Your task to perform on an android device: open device folders in google photos Image 0: 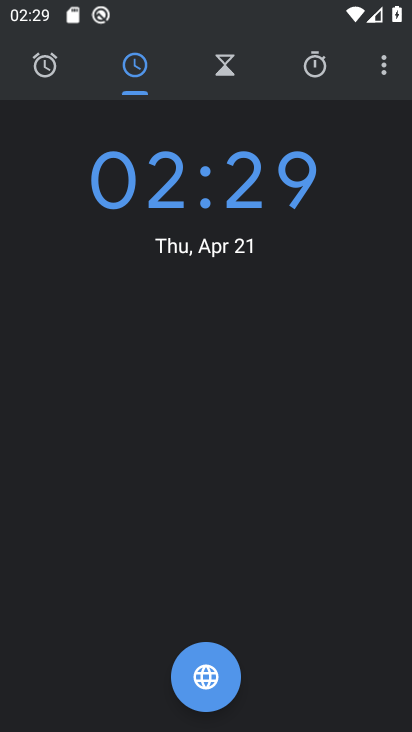
Step 0: press home button
Your task to perform on an android device: open device folders in google photos Image 1: 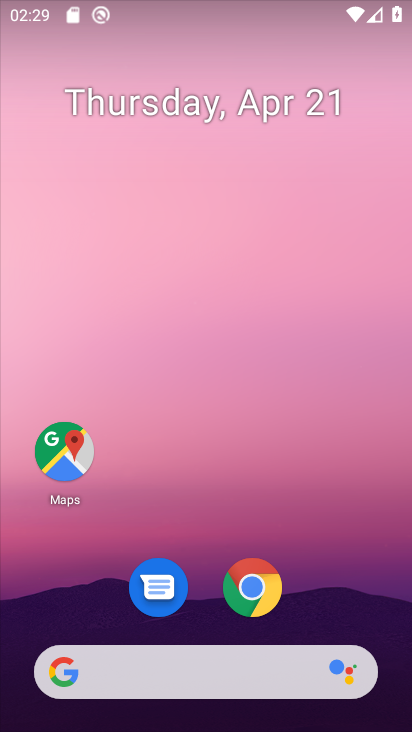
Step 1: drag from (326, 565) to (384, 122)
Your task to perform on an android device: open device folders in google photos Image 2: 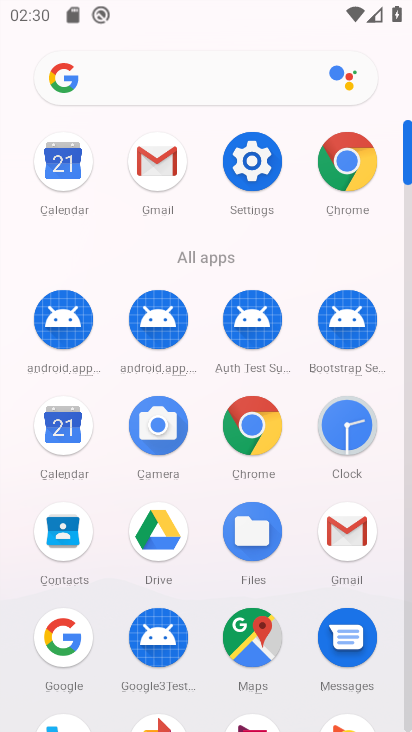
Step 2: drag from (192, 597) to (172, 273)
Your task to perform on an android device: open device folders in google photos Image 3: 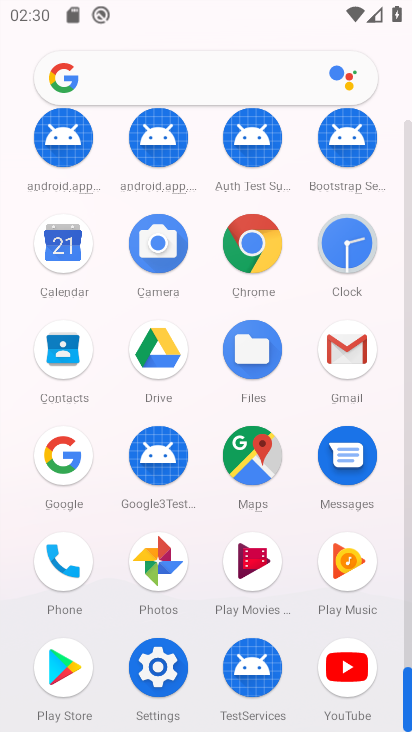
Step 3: click (165, 573)
Your task to perform on an android device: open device folders in google photos Image 4: 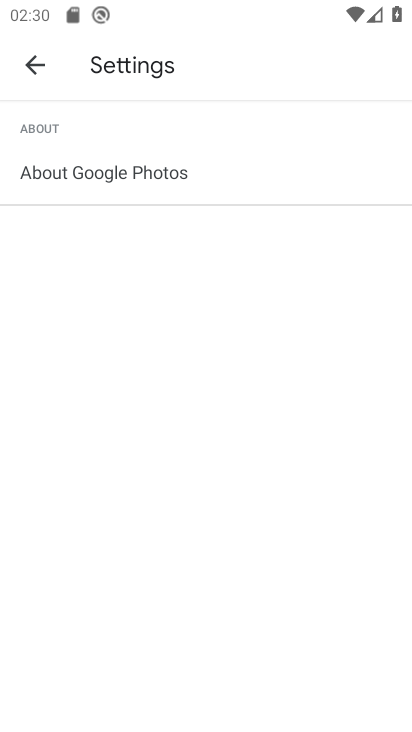
Step 4: click (36, 66)
Your task to perform on an android device: open device folders in google photos Image 5: 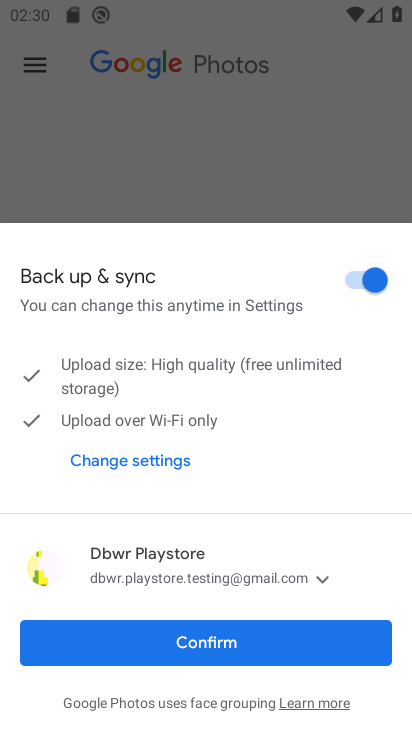
Step 5: click (223, 644)
Your task to perform on an android device: open device folders in google photos Image 6: 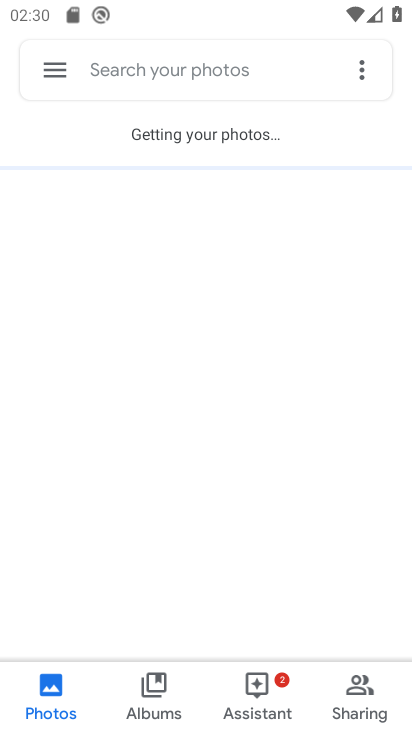
Step 6: click (48, 65)
Your task to perform on an android device: open device folders in google photos Image 7: 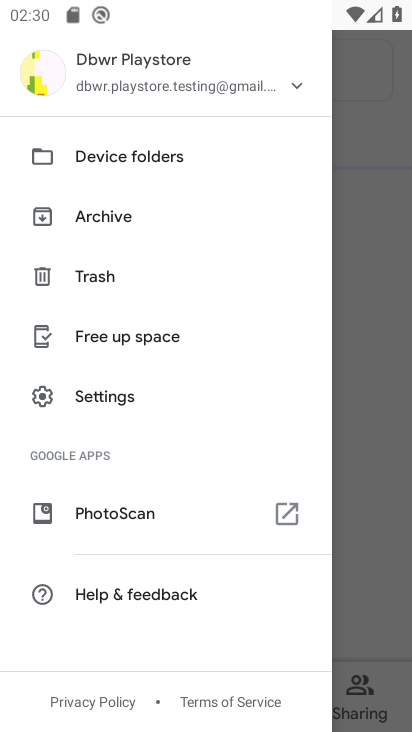
Step 7: click (149, 151)
Your task to perform on an android device: open device folders in google photos Image 8: 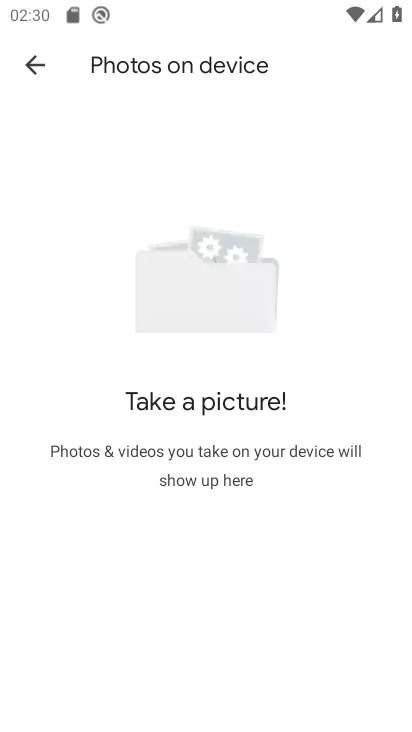
Step 8: task complete